Your task to perform on an android device: turn smart compose on in the gmail app Image 0: 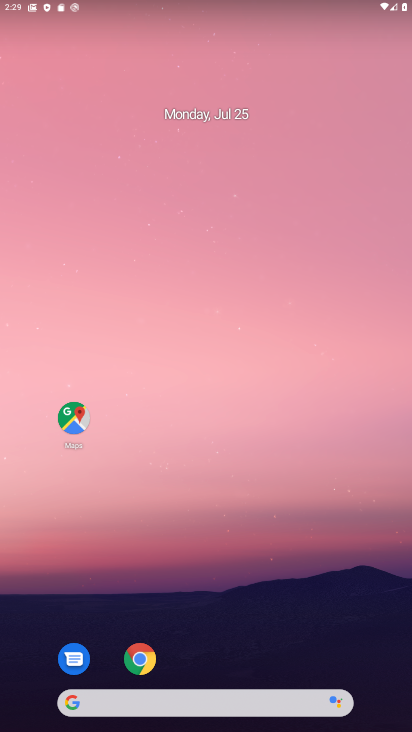
Step 0: drag from (230, 681) to (310, 93)
Your task to perform on an android device: turn smart compose on in the gmail app Image 1: 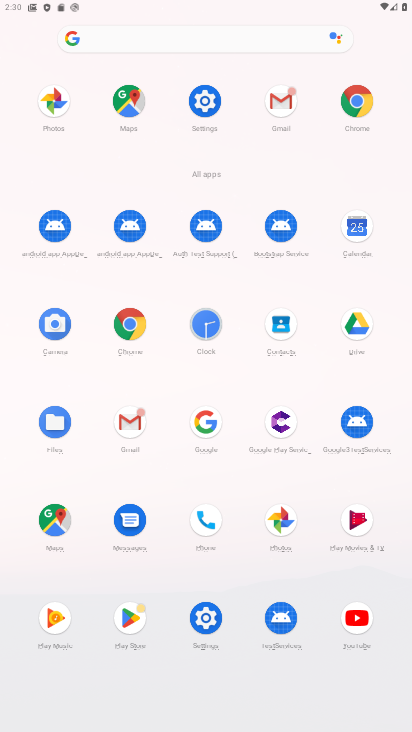
Step 1: click (280, 101)
Your task to perform on an android device: turn smart compose on in the gmail app Image 2: 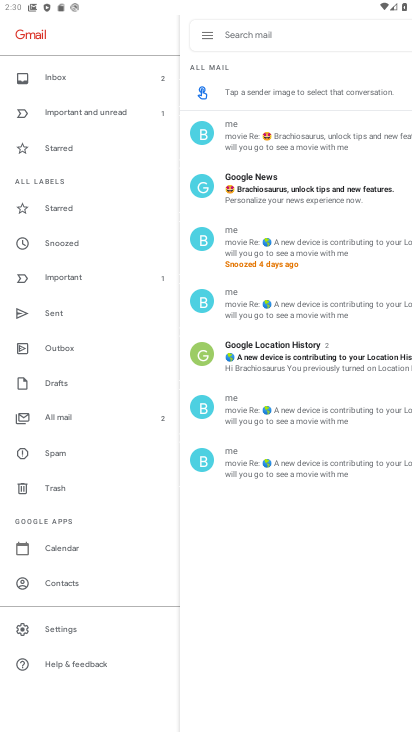
Step 2: click (203, 31)
Your task to perform on an android device: turn smart compose on in the gmail app Image 3: 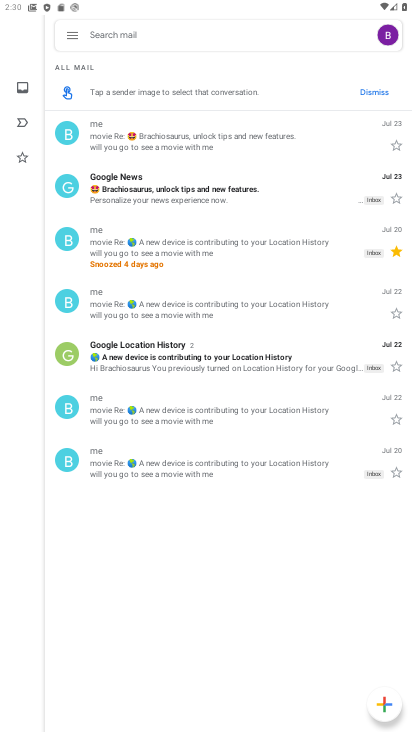
Step 3: click (74, 37)
Your task to perform on an android device: turn smart compose on in the gmail app Image 4: 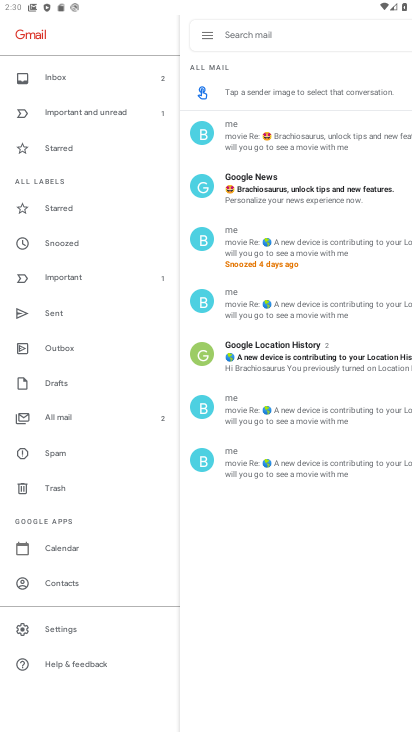
Step 4: click (72, 632)
Your task to perform on an android device: turn smart compose on in the gmail app Image 5: 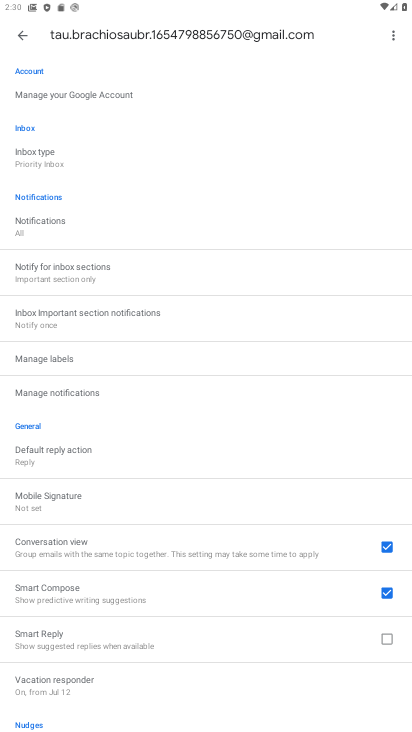
Step 5: task complete